Your task to perform on an android device: change timer sound Image 0: 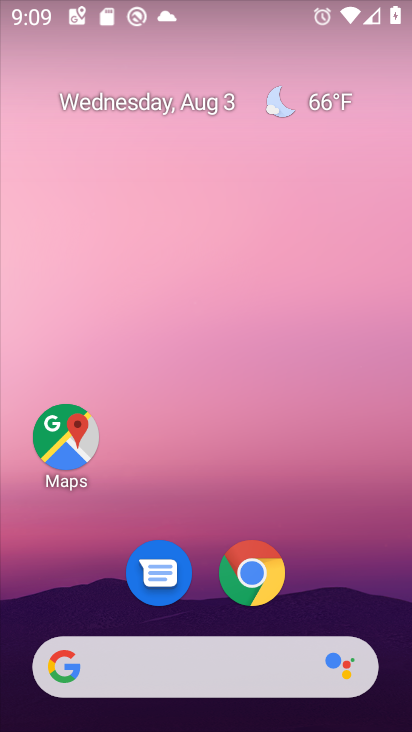
Step 0: drag from (362, 617) to (348, 13)
Your task to perform on an android device: change timer sound Image 1: 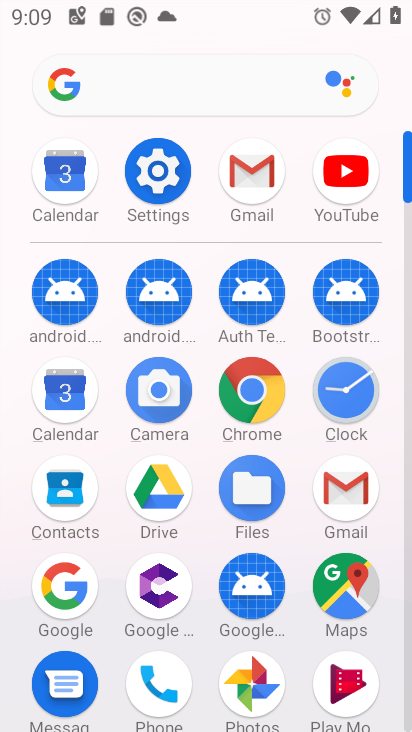
Step 1: click (347, 391)
Your task to perform on an android device: change timer sound Image 2: 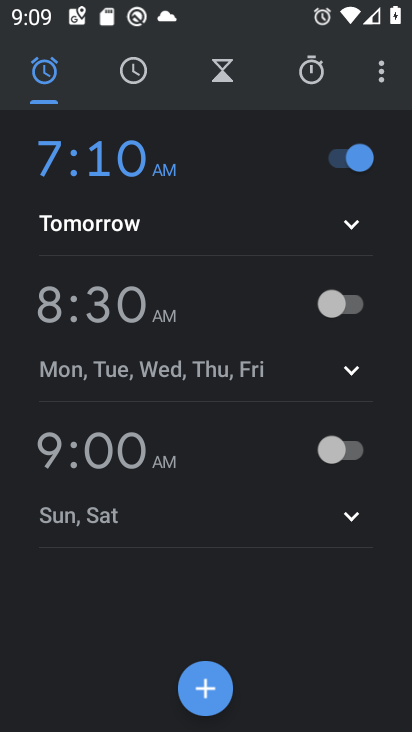
Step 2: click (384, 82)
Your task to perform on an android device: change timer sound Image 3: 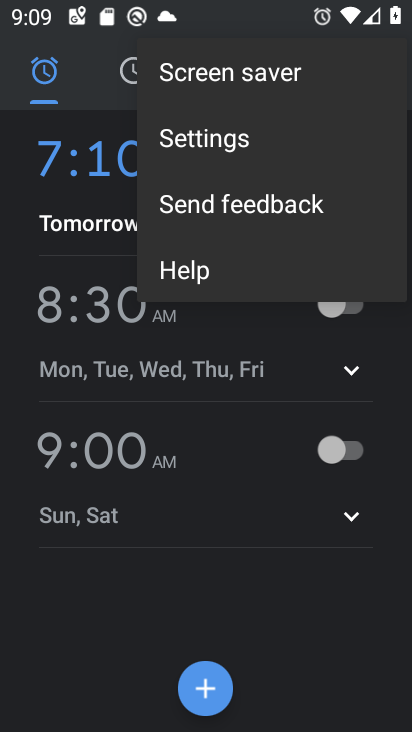
Step 3: click (224, 143)
Your task to perform on an android device: change timer sound Image 4: 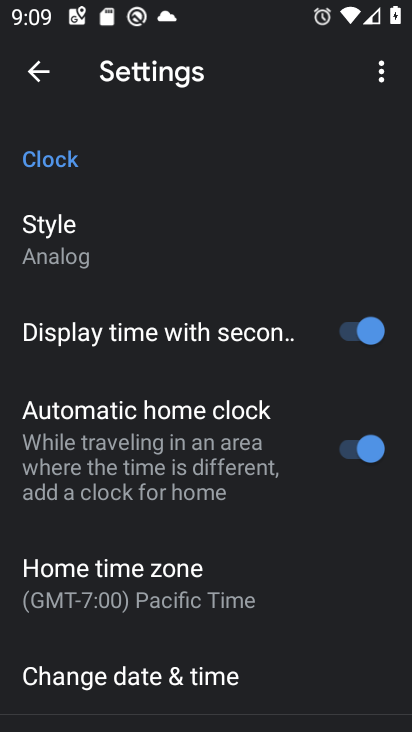
Step 4: drag from (153, 513) to (179, 144)
Your task to perform on an android device: change timer sound Image 5: 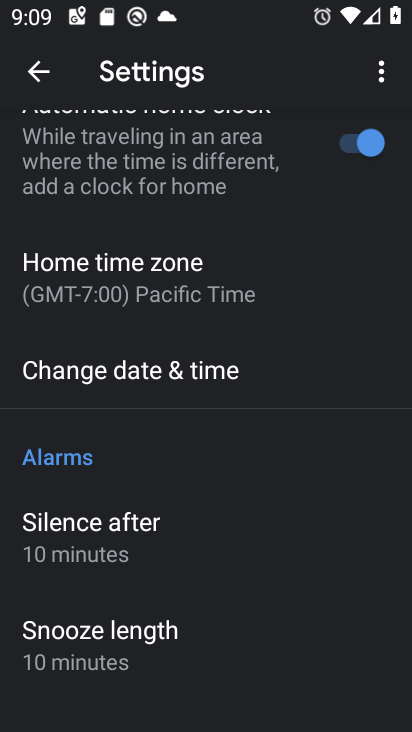
Step 5: drag from (143, 553) to (171, 152)
Your task to perform on an android device: change timer sound Image 6: 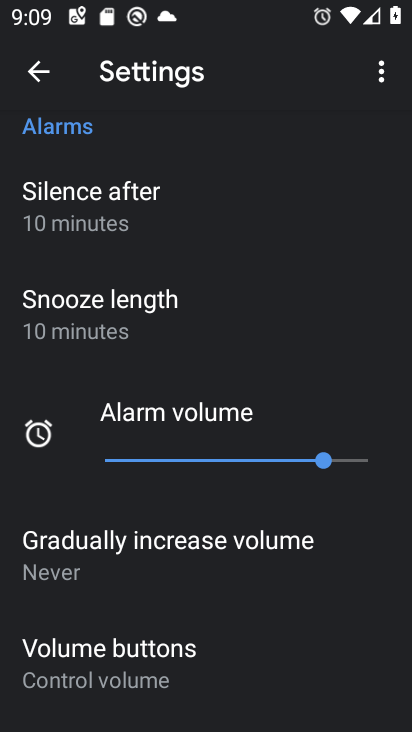
Step 6: drag from (97, 550) to (140, 149)
Your task to perform on an android device: change timer sound Image 7: 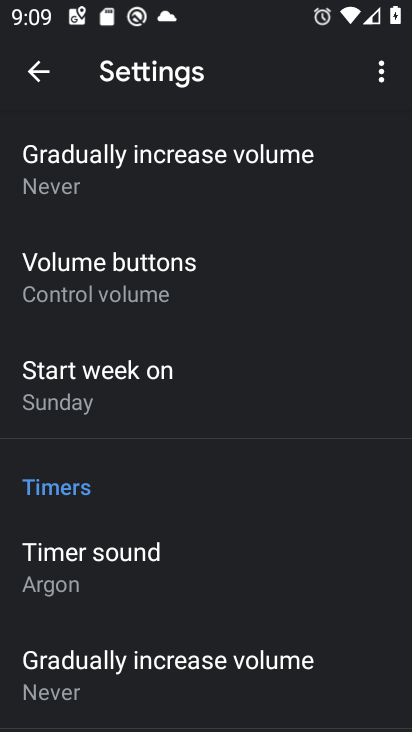
Step 7: click (107, 560)
Your task to perform on an android device: change timer sound Image 8: 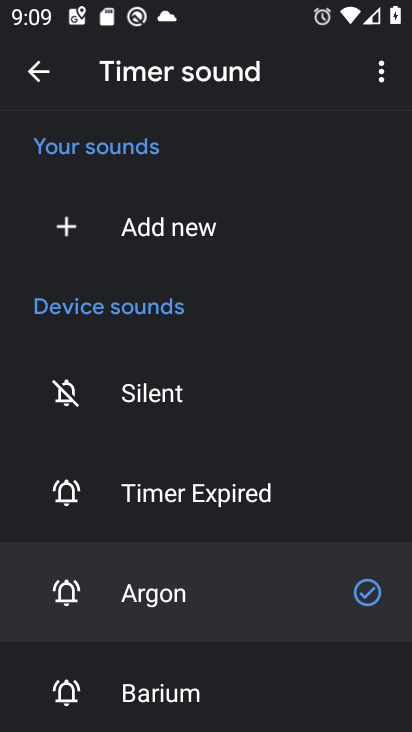
Step 8: click (116, 686)
Your task to perform on an android device: change timer sound Image 9: 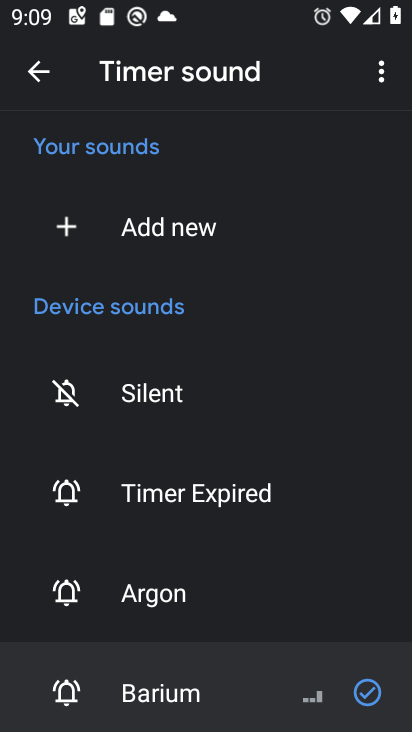
Step 9: task complete